Your task to perform on an android device: Go to internet settings Image 0: 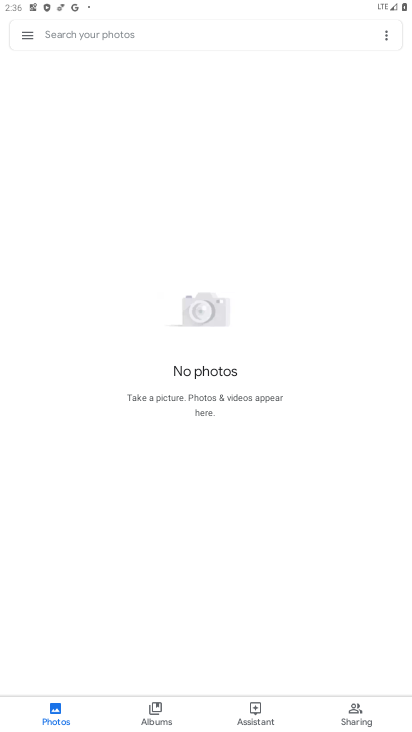
Step 0: press home button
Your task to perform on an android device: Go to internet settings Image 1: 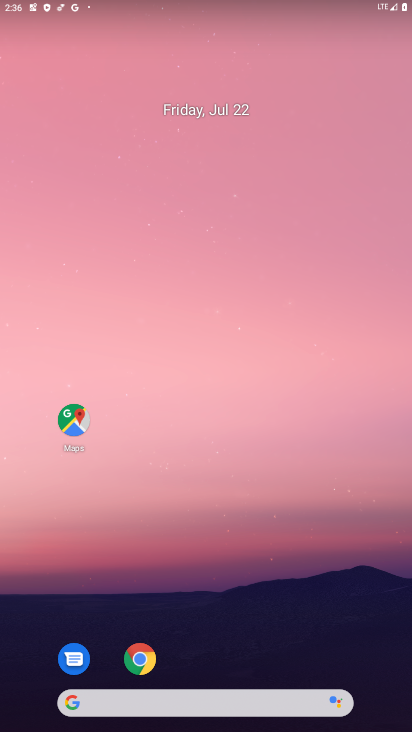
Step 1: drag from (195, 652) to (146, 0)
Your task to perform on an android device: Go to internet settings Image 2: 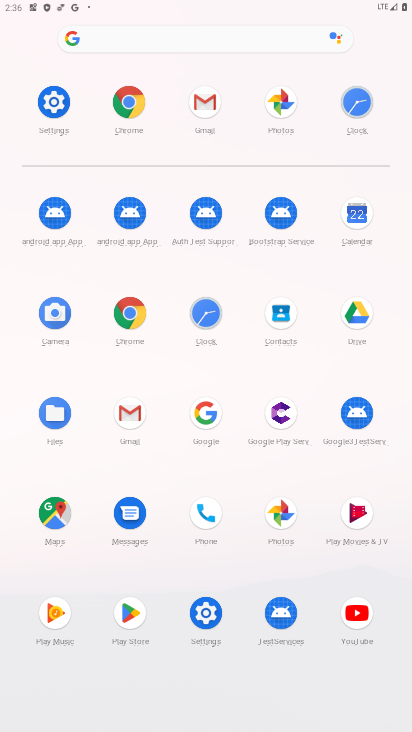
Step 2: click (49, 119)
Your task to perform on an android device: Go to internet settings Image 3: 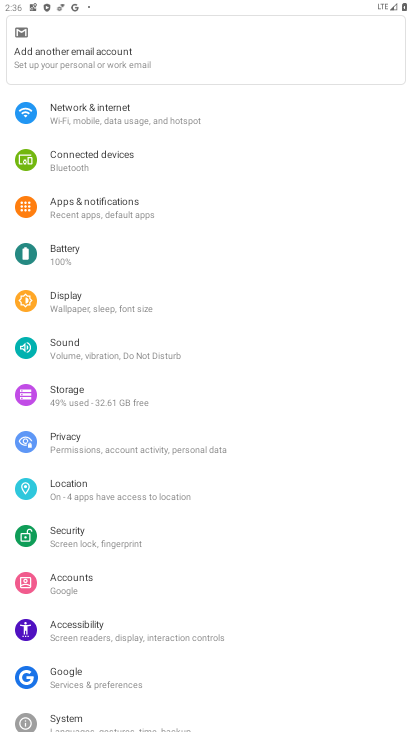
Step 3: click (116, 110)
Your task to perform on an android device: Go to internet settings Image 4: 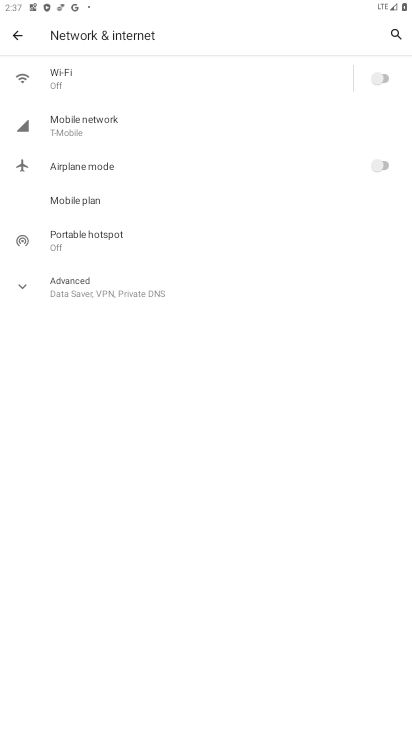
Step 4: task complete